Your task to perform on an android device: empty trash in google photos Image 0: 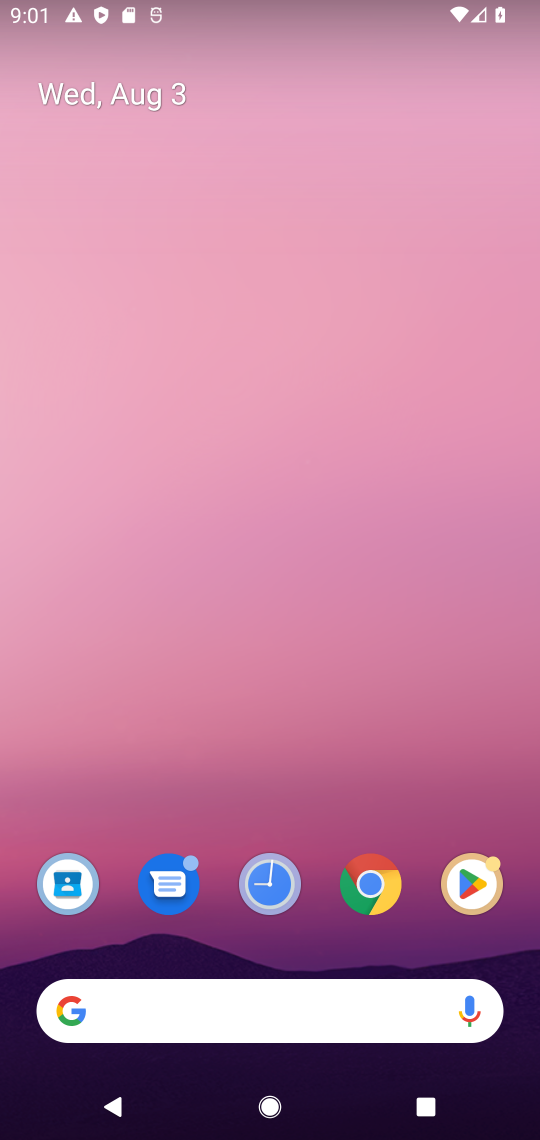
Step 0: press home button
Your task to perform on an android device: empty trash in google photos Image 1: 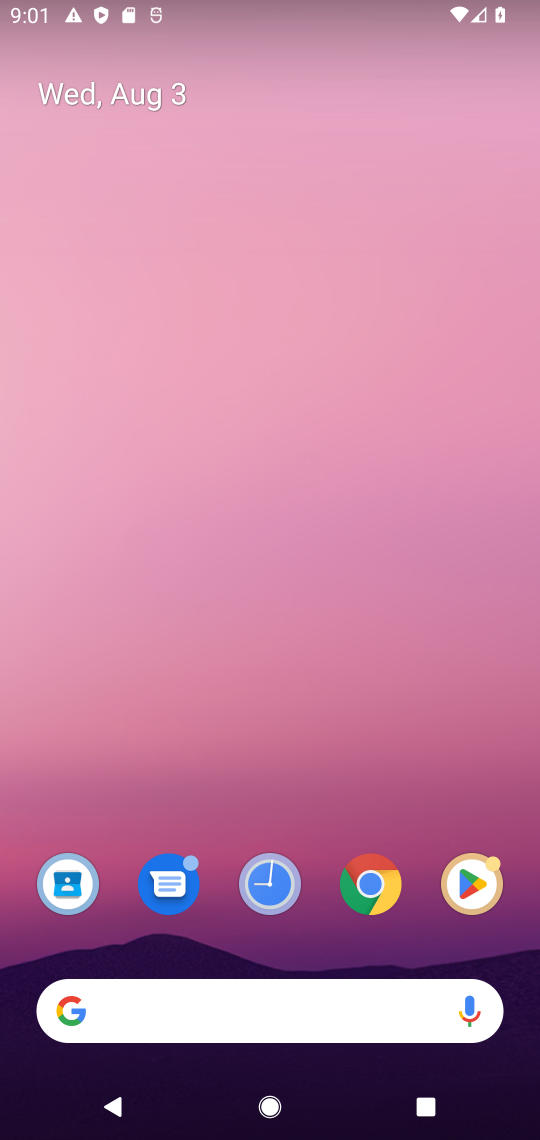
Step 1: drag from (279, 959) to (140, 137)
Your task to perform on an android device: empty trash in google photos Image 2: 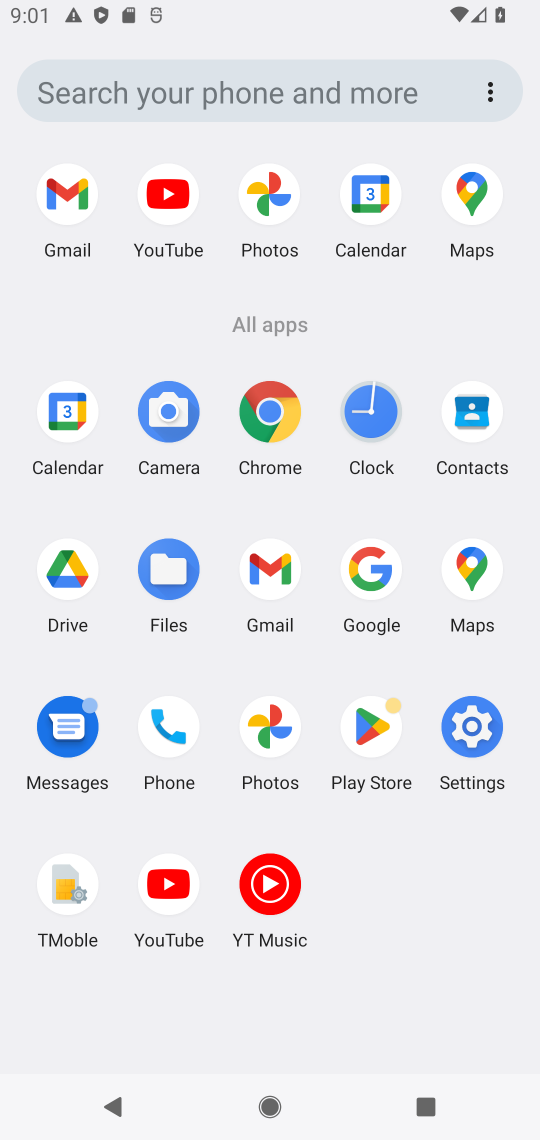
Step 2: click (261, 757)
Your task to perform on an android device: empty trash in google photos Image 3: 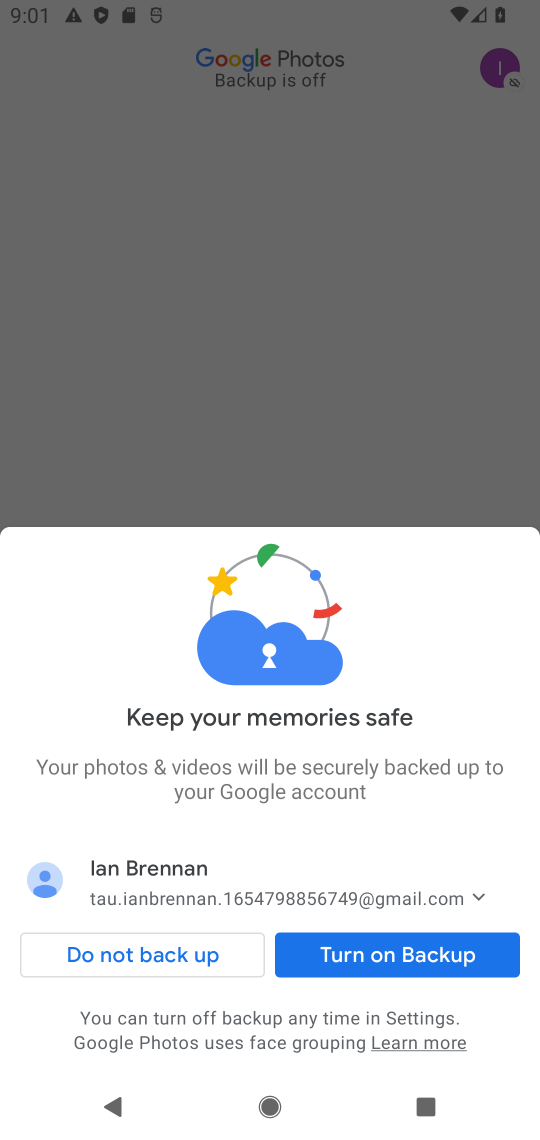
Step 3: click (508, 69)
Your task to perform on an android device: empty trash in google photos Image 4: 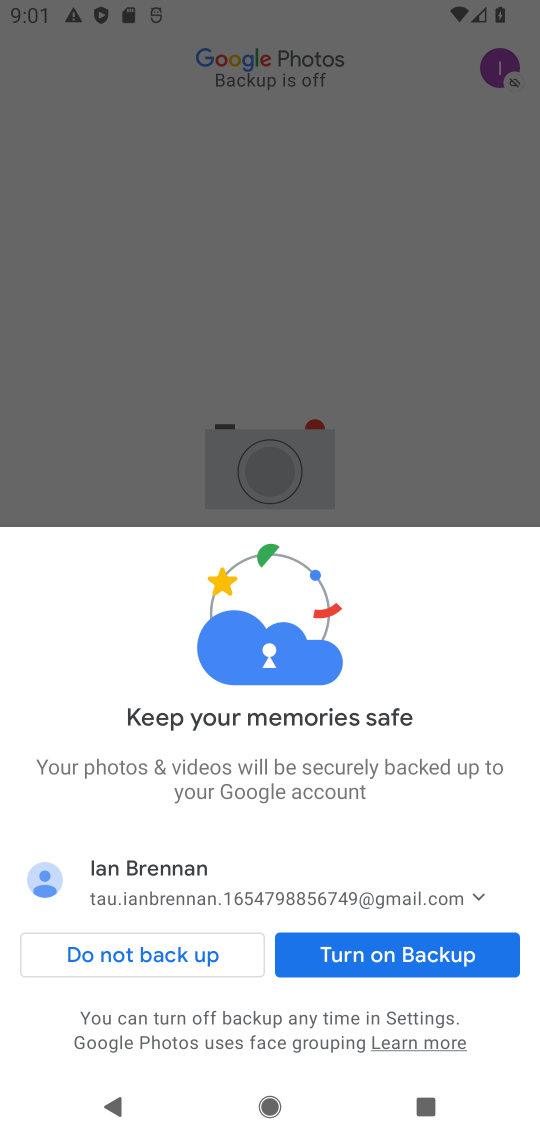
Step 4: click (185, 967)
Your task to perform on an android device: empty trash in google photos Image 5: 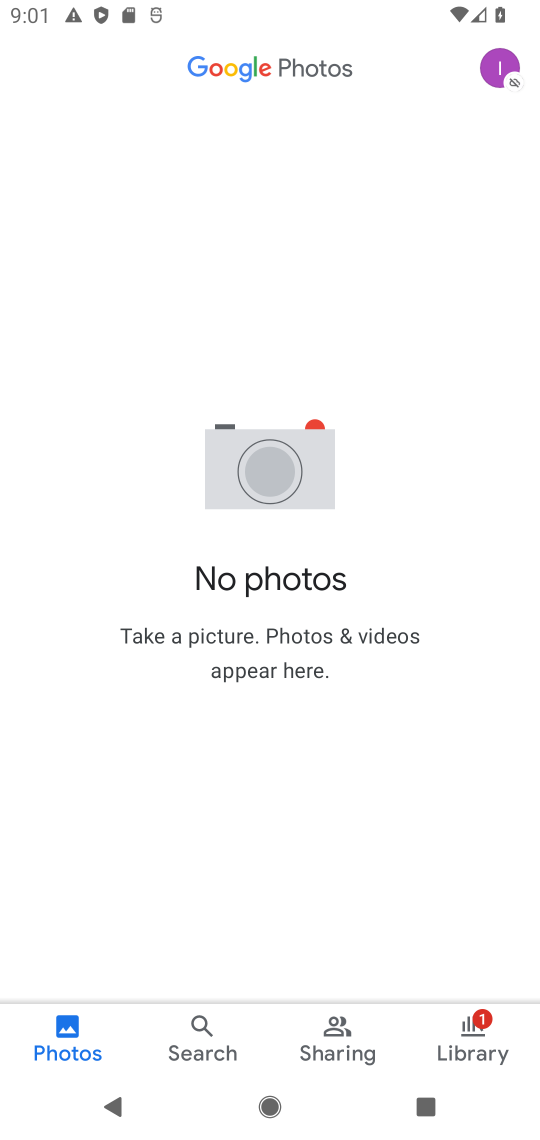
Step 5: click (508, 60)
Your task to perform on an android device: empty trash in google photos Image 6: 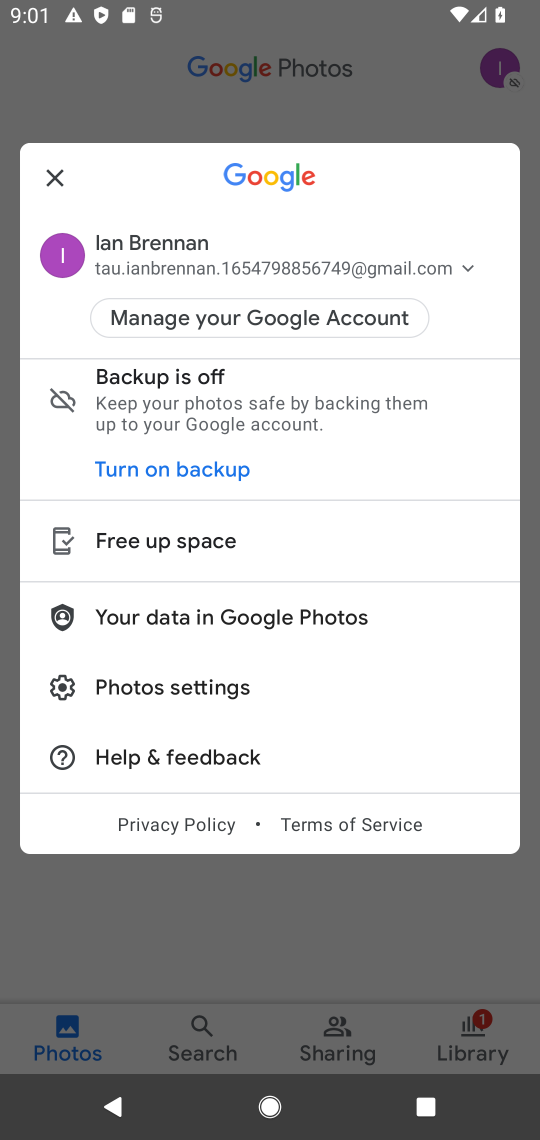
Step 6: click (131, 883)
Your task to perform on an android device: empty trash in google photos Image 7: 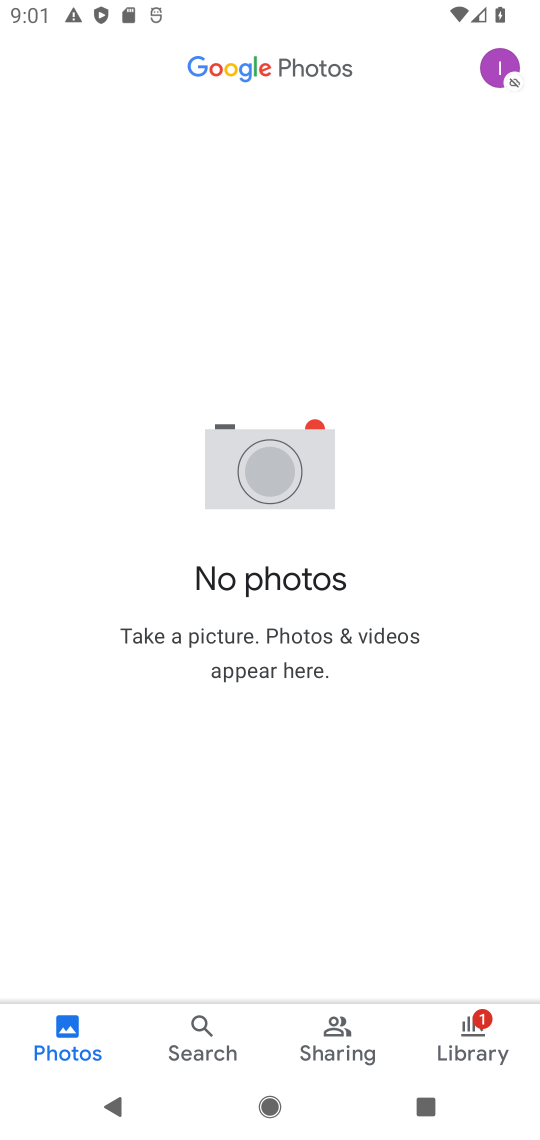
Step 7: click (494, 1028)
Your task to perform on an android device: empty trash in google photos Image 8: 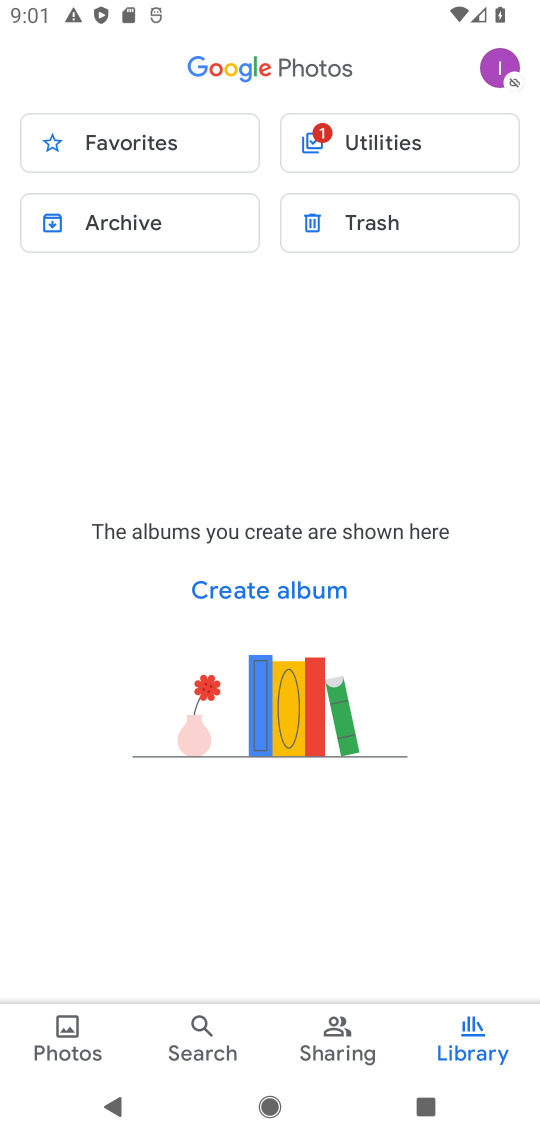
Step 8: click (362, 233)
Your task to perform on an android device: empty trash in google photos Image 9: 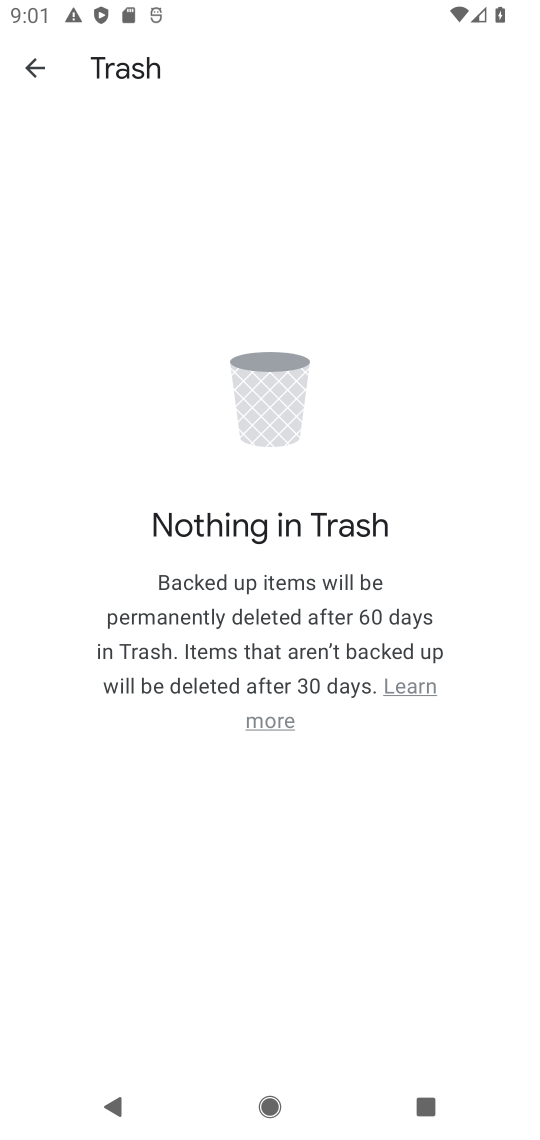
Step 9: task complete